Your task to perform on an android device: Open Youtube and go to "Your channel" Image 0: 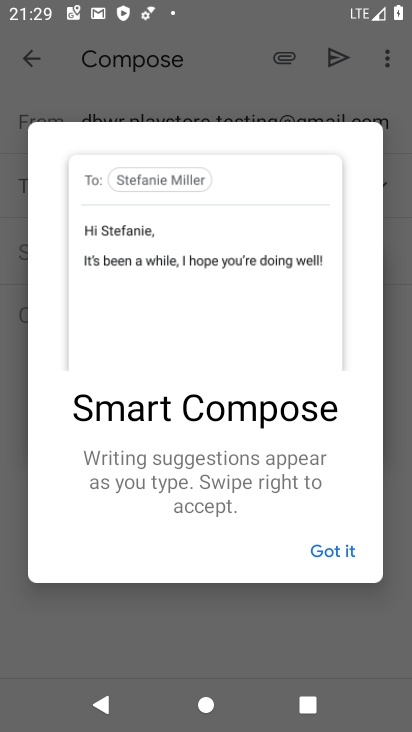
Step 0: press home button
Your task to perform on an android device: Open Youtube and go to "Your channel" Image 1: 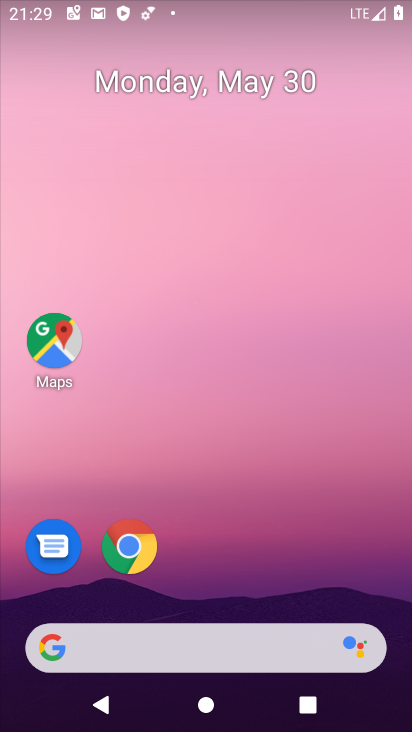
Step 1: drag from (324, 586) to (332, 119)
Your task to perform on an android device: Open Youtube and go to "Your channel" Image 2: 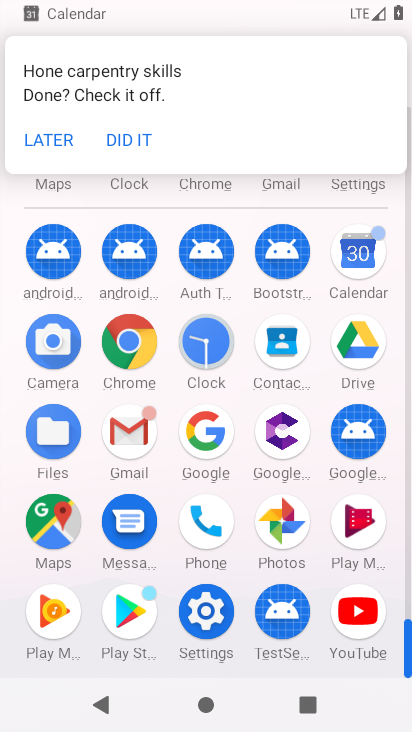
Step 2: click (359, 626)
Your task to perform on an android device: Open Youtube and go to "Your channel" Image 3: 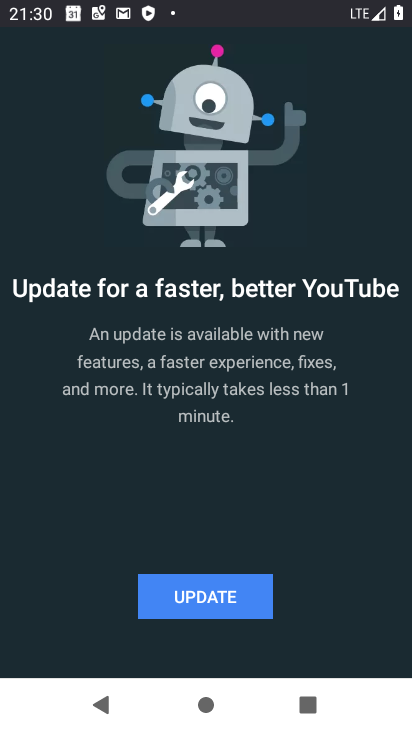
Step 3: click (241, 606)
Your task to perform on an android device: Open Youtube and go to "Your channel" Image 4: 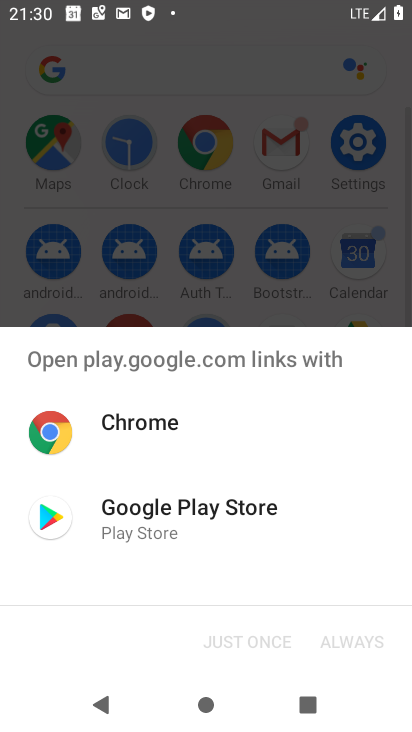
Step 4: click (173, 502)
Your task to perform on an android device: Open Youtube and go to "Your channel" Image 5: 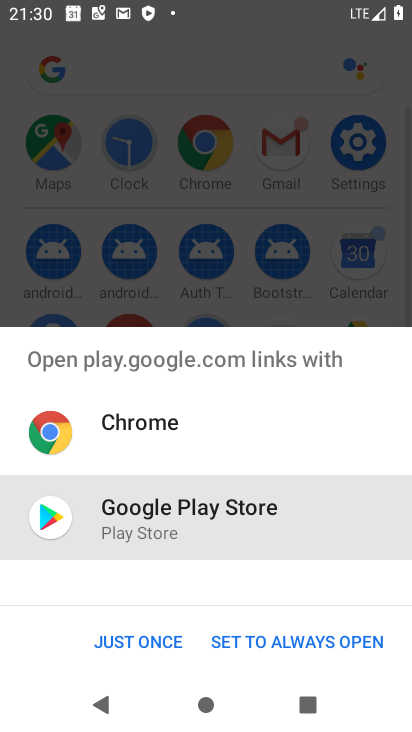
Step 5: click (167, 636)
Your task to perform on an android device: Open Youtube and go to "Your channel" Image 6: 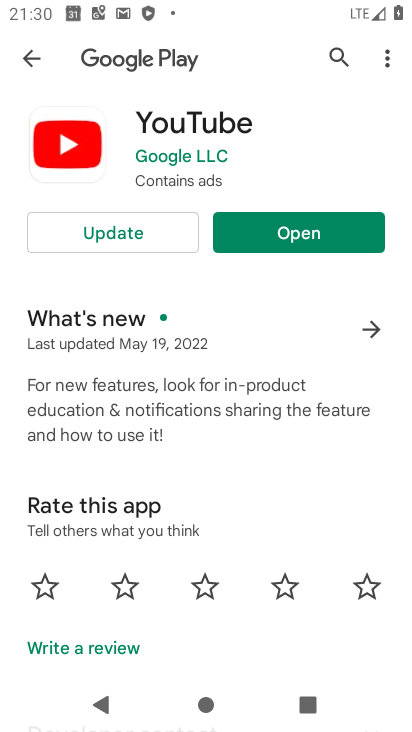
Step 6: click (124, 236)
Your task to perform on an android device: Open Youtube and go to "Your channel" Image 7: 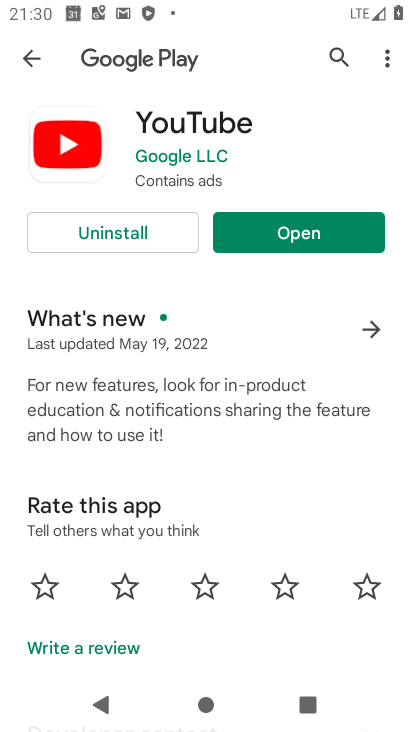
Step 7: click (309, 239)
Your task to perform on an android device: Open Youtube and go to "Your channel" Image 8: 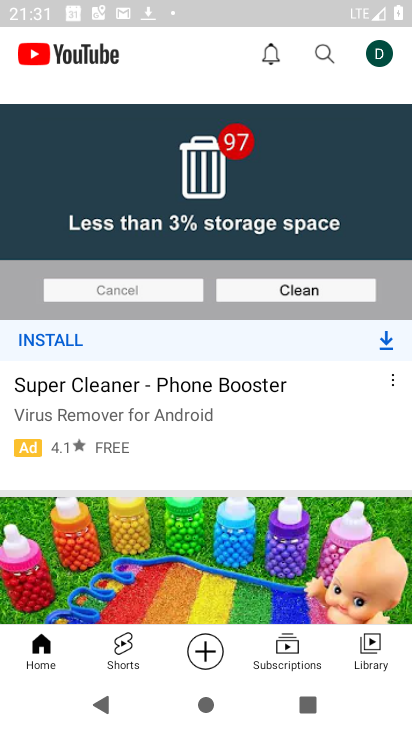
Step 8: click (387, 60)
Your task to perform on an android device: Open Youtube and go to "Your channel" Image 9: 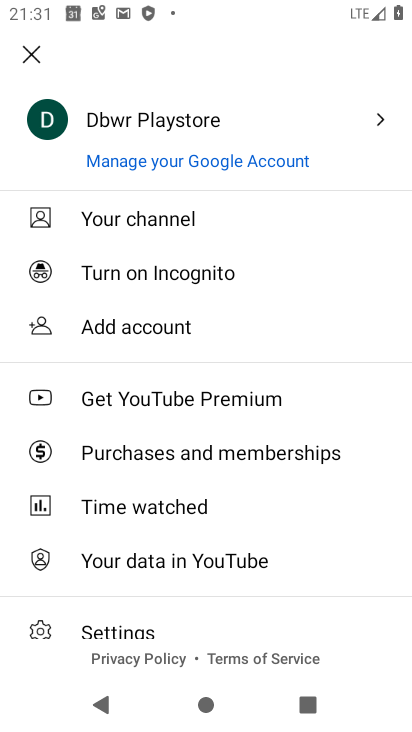
Step 9: click (173, 235)
Your task to perform on an android device: Open Youtube and go to "Your channel" Image 10: 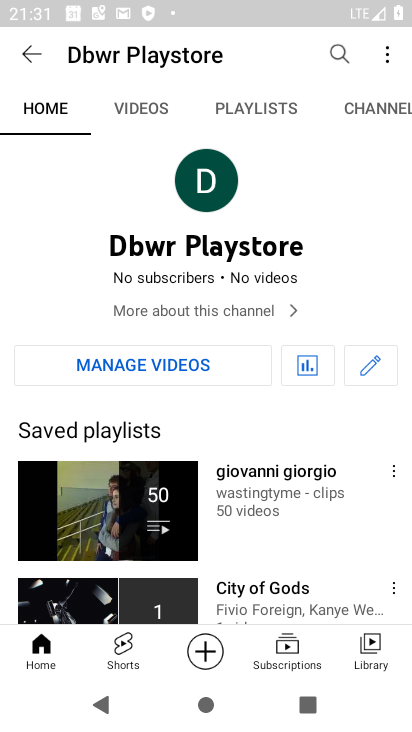
Step 10: task complete